Your task to perform on an android device: Search for vegetarian restaurants on Maps Image 0: 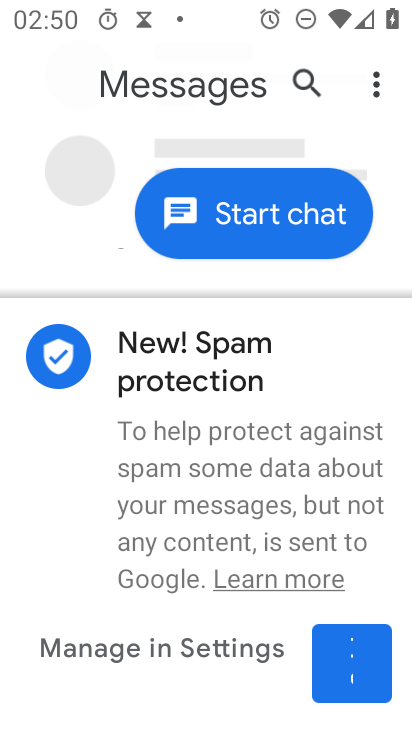
Step 0: press home button
Your task to perform on an android device: Search for vegetarian restaurants on Maps Image 1: 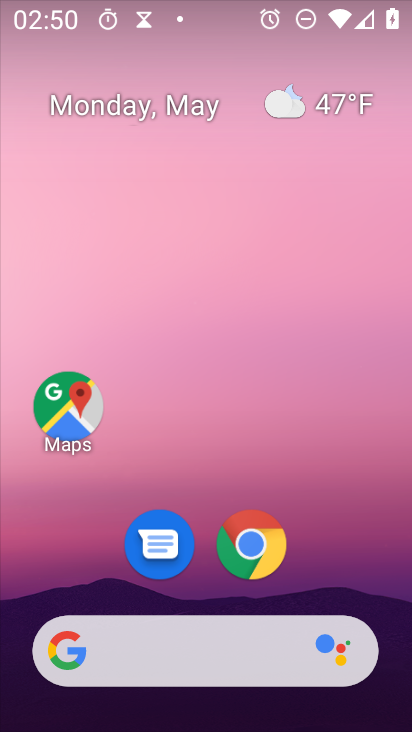
Step 1: drag from (305, 633) to (336, 9)
Your task to perform on an android device: Search for vegetarian restaurants on Maps Image 2: 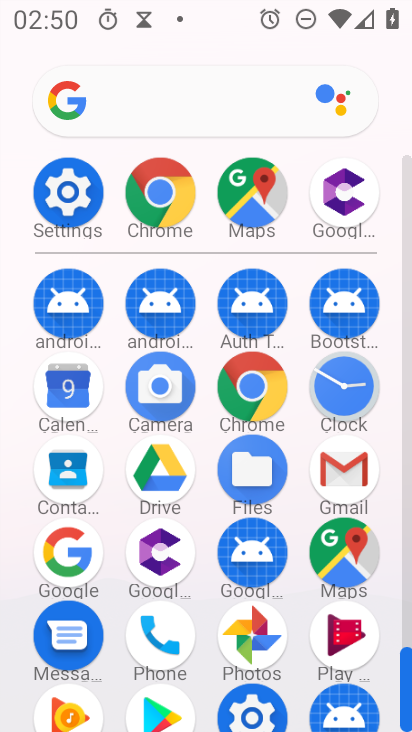
Step 2: click (346, 554)
Your task to perform on an android device: Search for vegetarian restaurants on Maps Image 3: 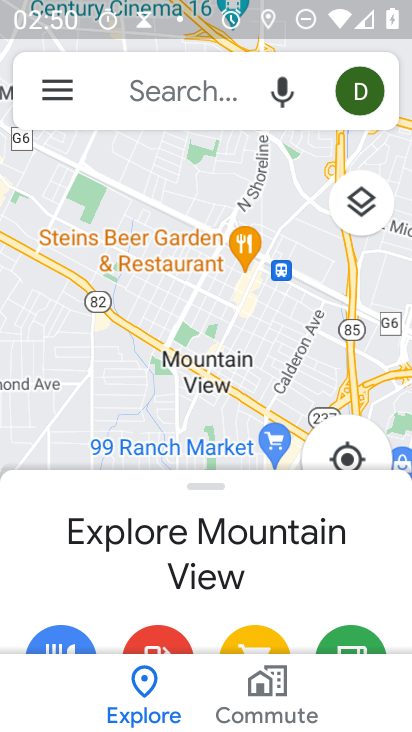
Step 3: click (191, 85)
Your task to perform on an android device: Search for vegetarian restaurants on Maps Image 4: 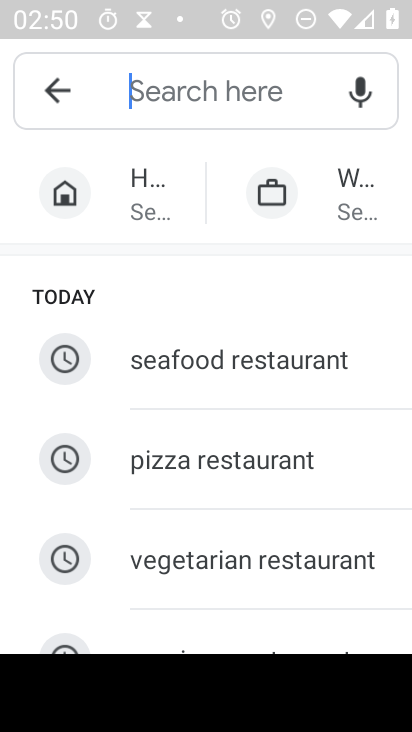
Step 4: click (214, 571)
Your task to perform on an android device: Search for vegetarian restaurants on Maps Image 5: 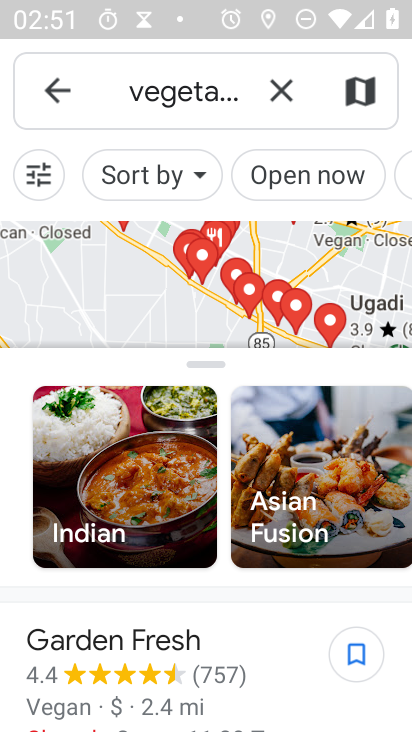
Step 5: task complete